Your task to perform on an android device: turn smart compose on in the gmail app Image 0: 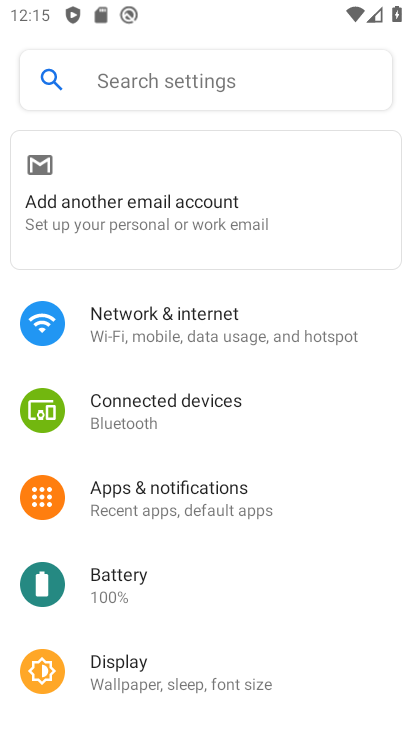
Step 0: press home button
Your task to perform on an android device: turn smart compose on in the gmail app Image 1: 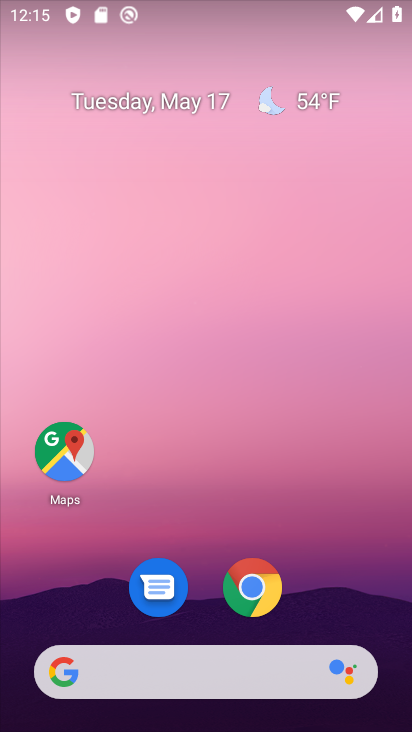
Step 1: drag from (200, 623) to (322, 51)
Your task to perform on an android device: turn smart compose on in the gmail app Image 2: 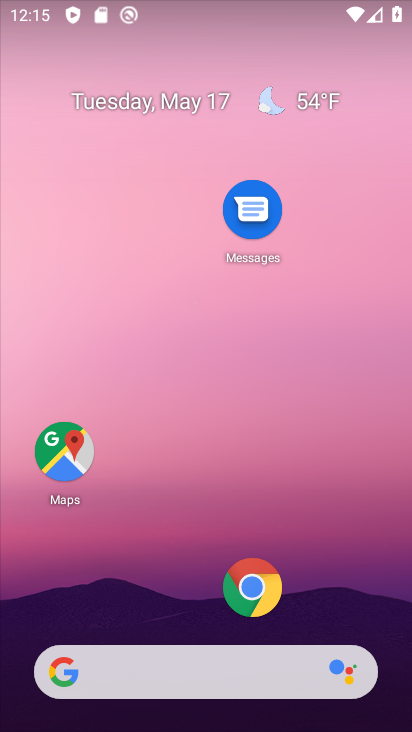
Step 2: drag from (146, 598) to (220, 11)
Your task to perform on an android device: turn smart compose on in the gmail app Image 3: 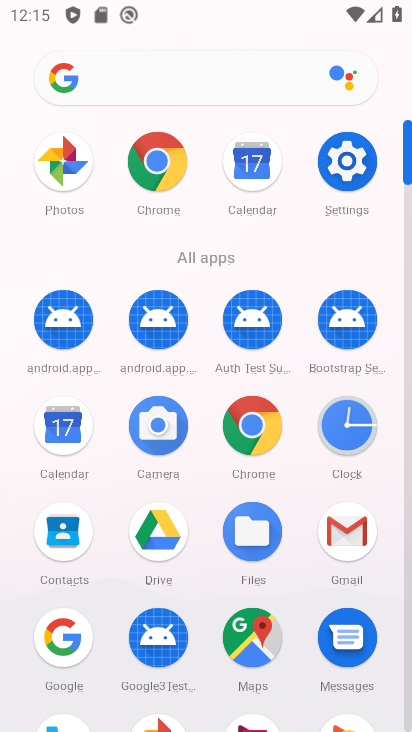
Step 3: click (364, 538)
Your task to perform on an android device: turn smart compose on in the gmail app Image 4: 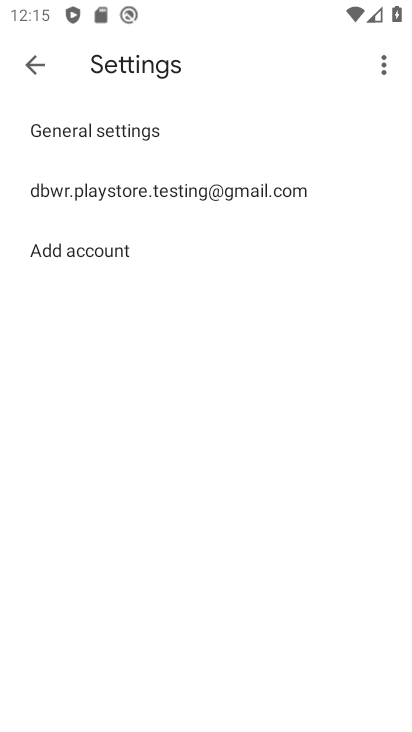
Step 4: click (85, 192)
Your task to perform on an android device: turn smart compose on in the gmail app Image 5: 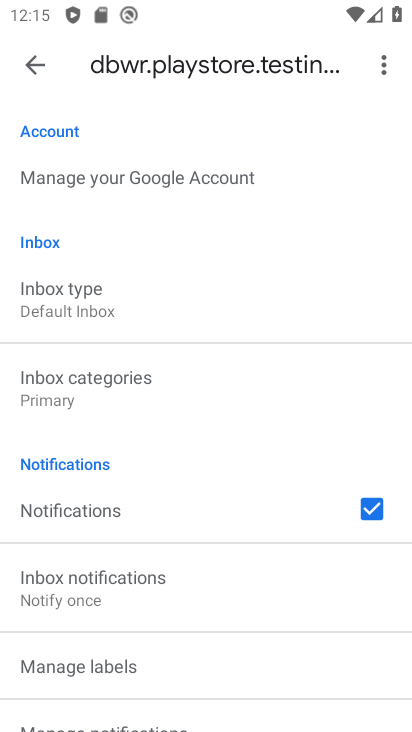
Step 5: task complete